Your task to perform on an android device: Search for pizza restaurants on Maps Image 0: 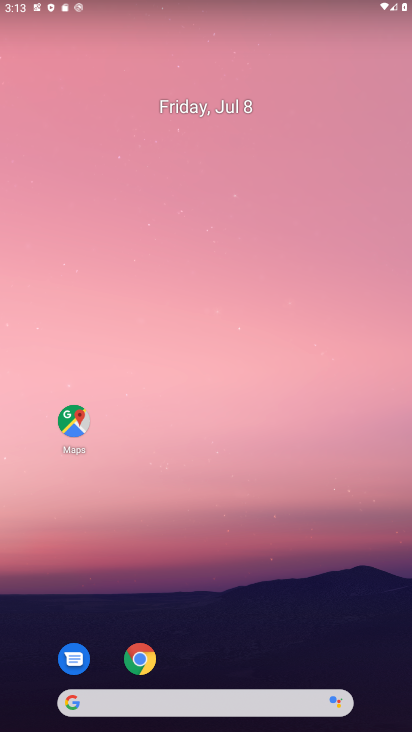
Step 0: click (73, 409)
Your task to perform on an android device: Search for pizza restaurants on Maps Image 1: 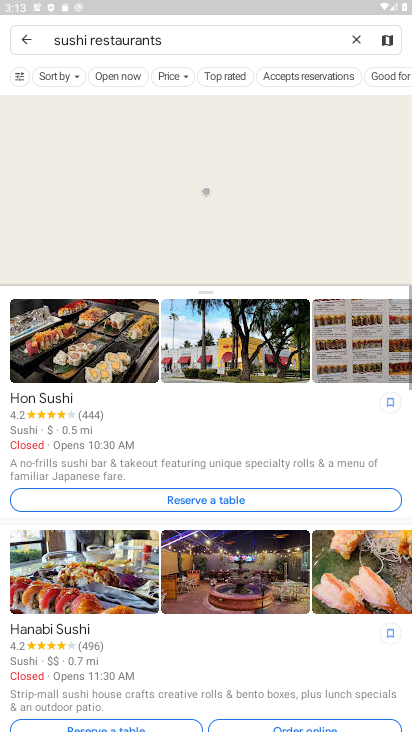
Step 1: click (360, 41)
Your task to perform on an android device: Search for pizza restaurants on Maps Image 2: 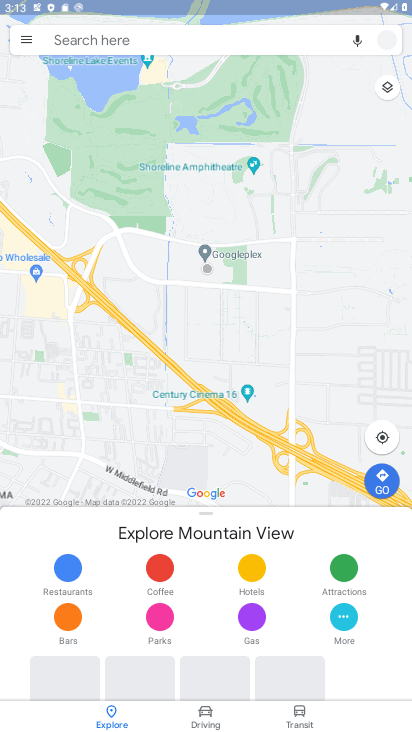
Step 2: click (231, 31)
Your task to perform on an android device: Search for pizza restaurants on Maps Image 3: 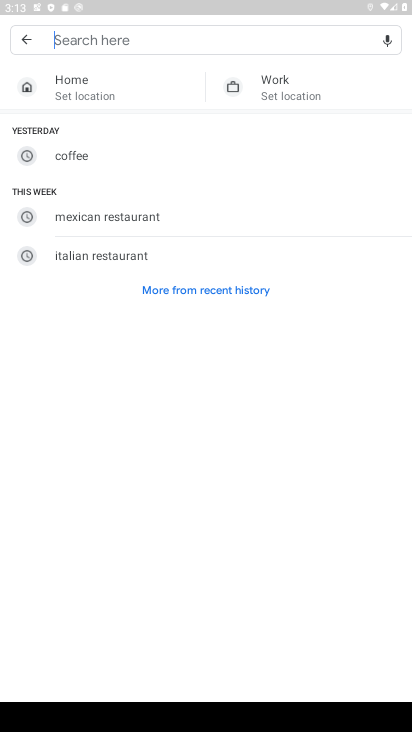
Step 3: click (164, 40)
Your task to perform on an android device: Search for pizza restaurants on Maps Image 4: 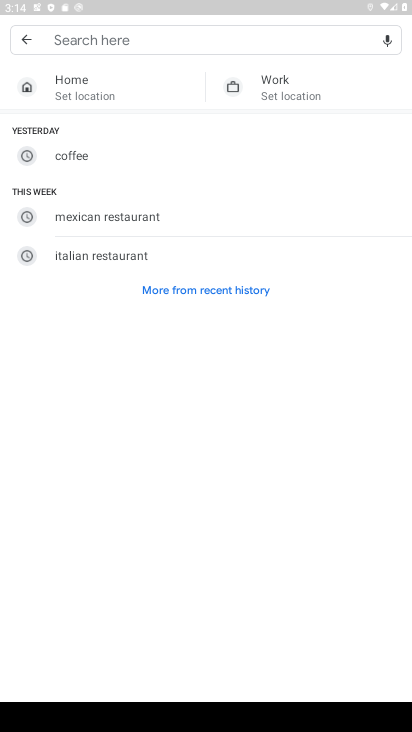
Step 4: type "pizza restaurants"
Your task to perform on an android device: Search for pizza restaurants on Maps Image 5: 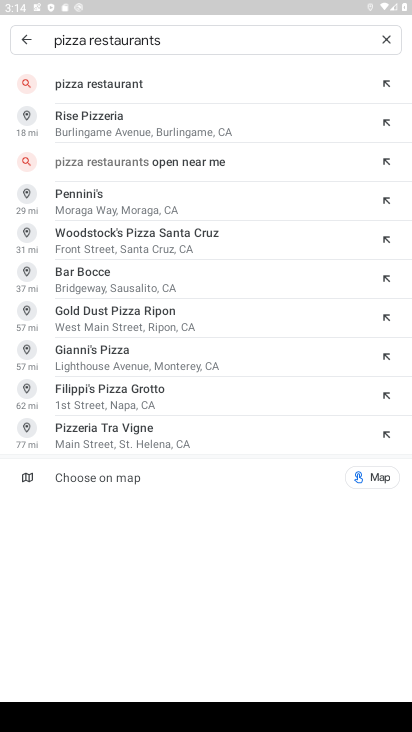
Step 5: click (159, 87)
Your task to perform on an android device: Search for pizza restaurants on Maps Image 6: 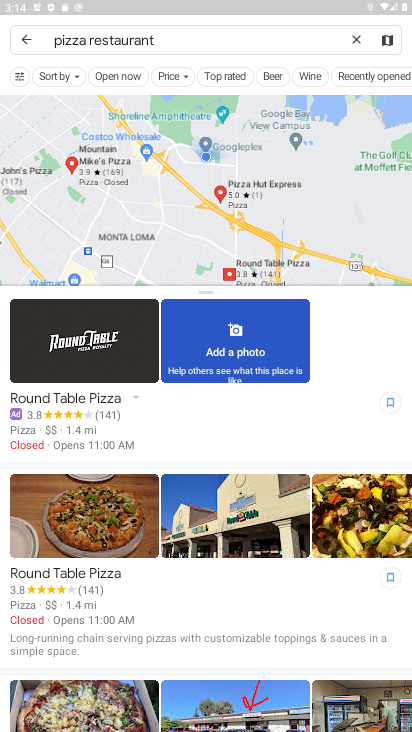
Step 6: task complete